Your task to perform on an android device: turn off sleep mode Image 0: 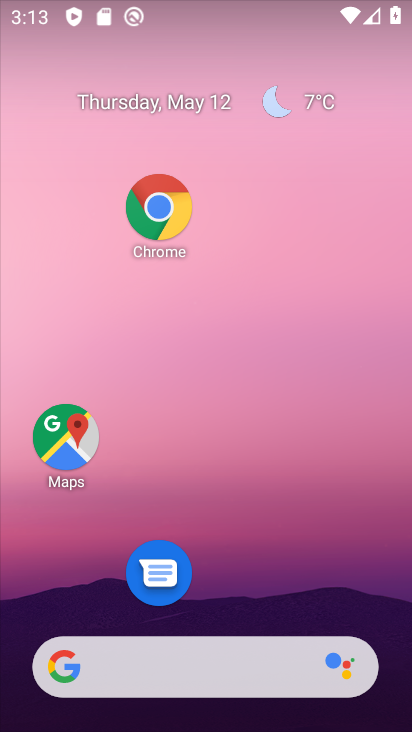
Step 0: drag from (299, 608) to (390, 80)
Your task to perform on an android device: turn off sleep mode Image 1: 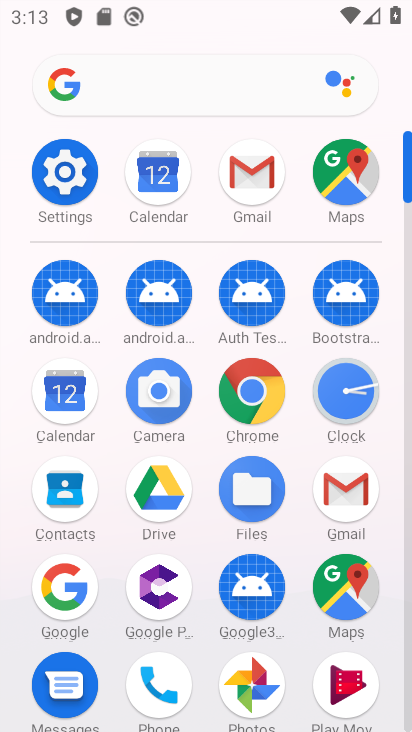
Step 1: click (96, 182)
Your task to perform on an android device: turn off sleep mode Image 2: 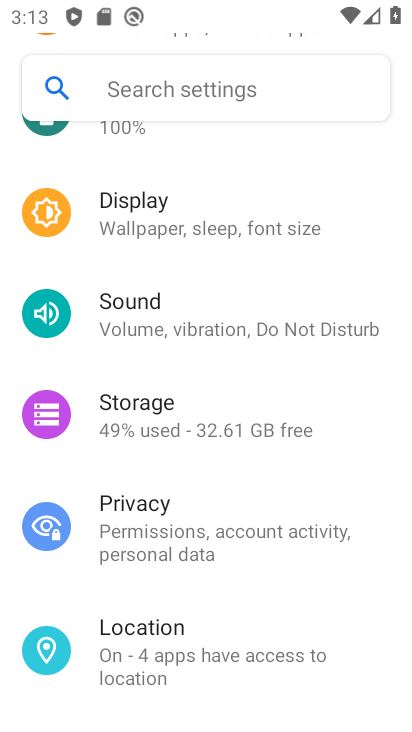
Step 2: click (213, 68)
Your task to perform on an android device: turn off sleep mode Image 3: 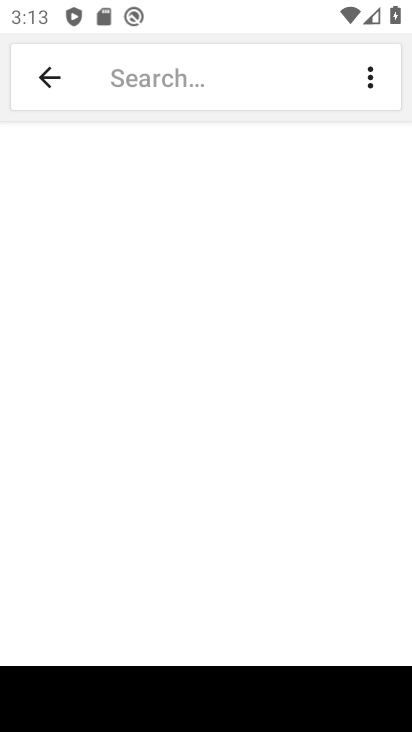
Step 3: type "sleep mode"
Your task to perform on an android device: turn off sleep mode Image 4: 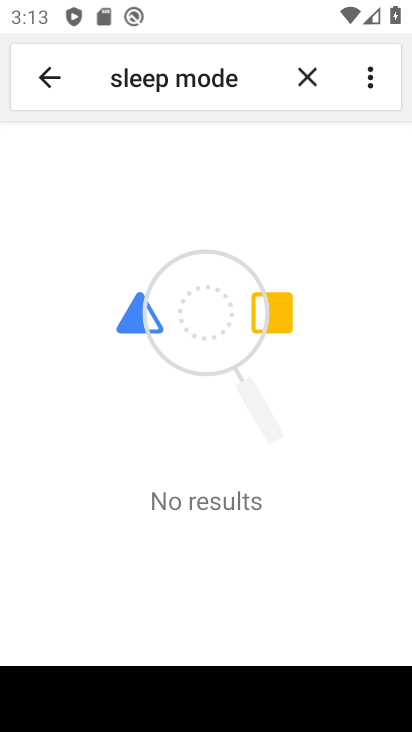
Step 4: task complete